Your task to perform on an android device: Open calendar and show me the fourth week of next month Image 0: 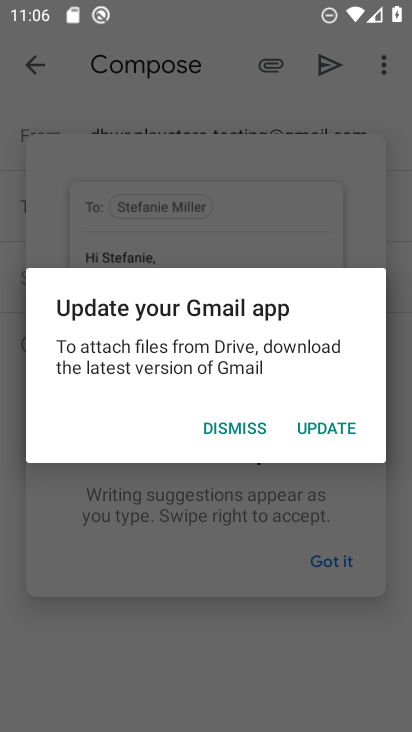
Step 0: press home button
Your task to perform on an android device: Open calendar and show me the fourth week of next month Image 1: 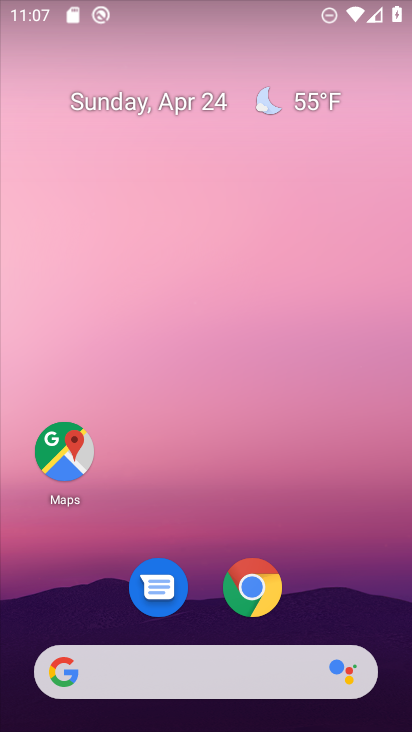
Step 1: drag from (353, 592) to (247, 149)
Your task to perform on an android device: Open calendar and show me the fourth week of next month Image 2: 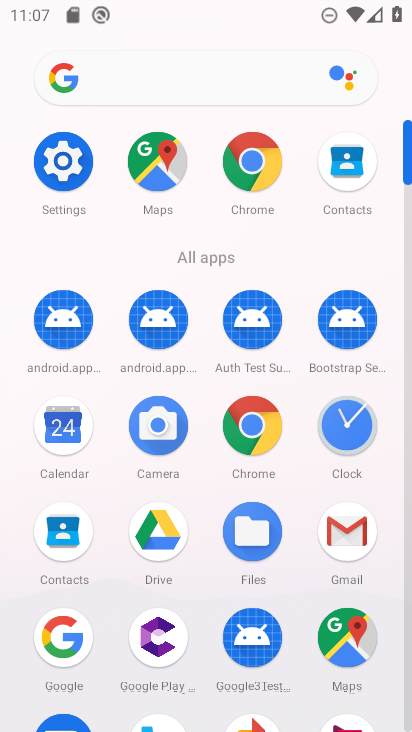
Step 2: click (63, 421)
Your task to perform on an android device: Open calendar and show me the fourth week of next month Image 3: 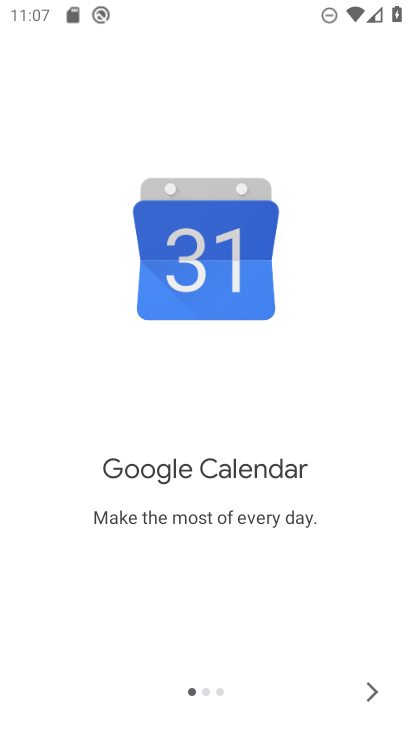
Step 3: click (374, 689)
Your task to perform on an android device: Open calendar and show me the fourth week of next month Image 4: 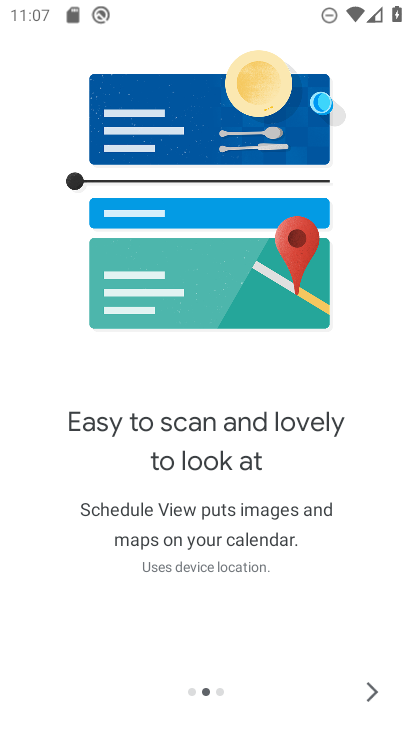
Step 4: click (374, 687)
Your task to perform on an android device: Open calendar and show me the fourth week of next month Image 5: 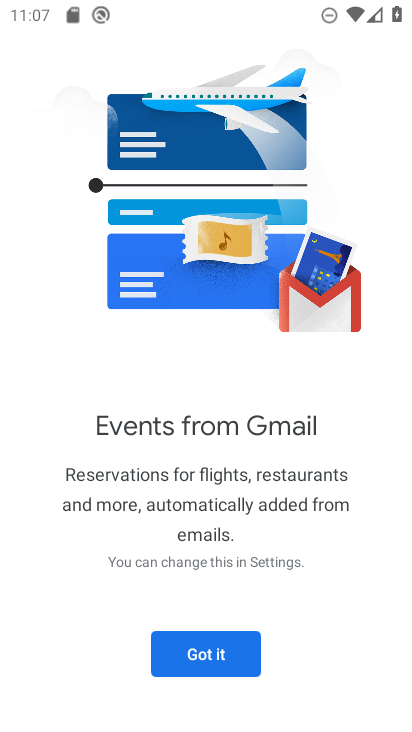
Step 5: click (190, 659)
Your task to perform on an android device: Open calendar and show me the fourth week of next month Image 6: 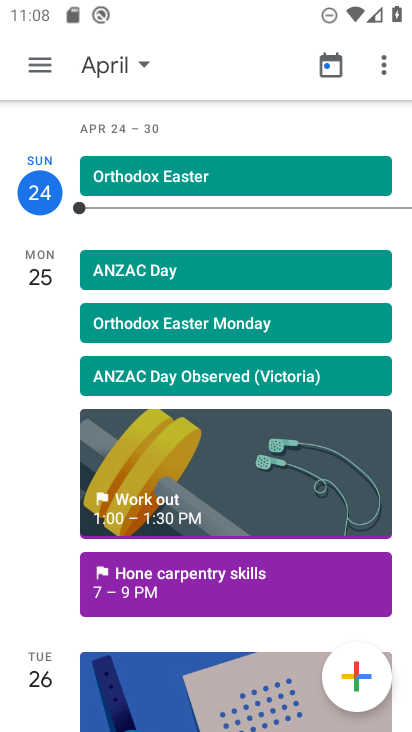
Step 6: click (135, 70)
Your task to perform on an android device: Open calendar and show me the fourth week of next month Image 7: 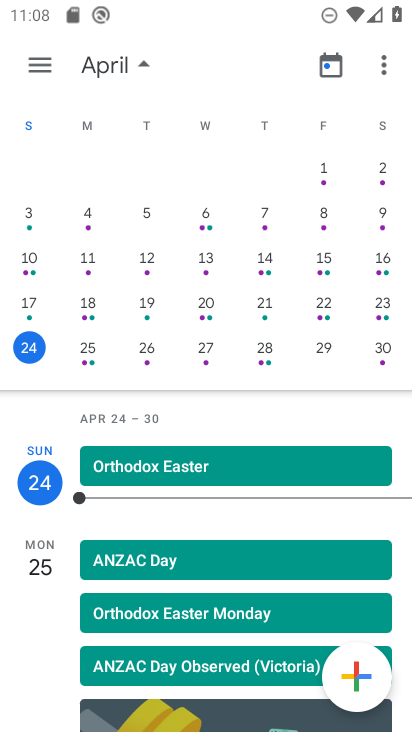
Step 7: drag from (366, 251) to (1, 252)
Your task to perform on an android device: Open calendar and show me the fourth week of next month Image 8: 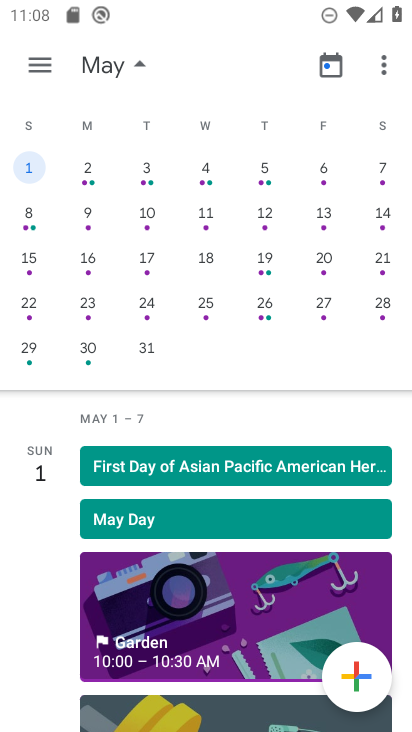
Step 8: click (160, 310)
Your task to perform on an android device: Open calendar and show me the fourth week of next month Image 9: 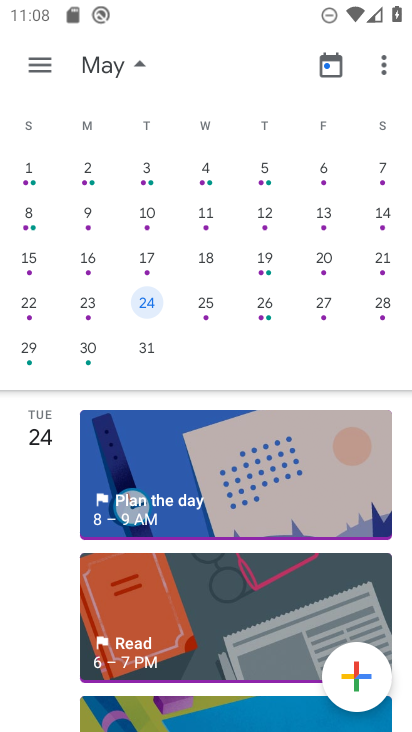
Step 9: task complete